Your task to perform on an android device: turn on the 12-hour format for clock Image 0: 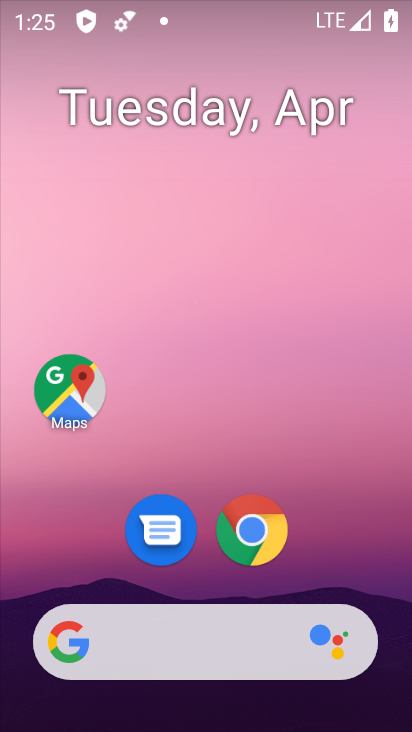
Step 0: drag from (222, 720) to (137, 21)
Your task to perform on an android device: turn on the 12-hour format for clock Image 1: 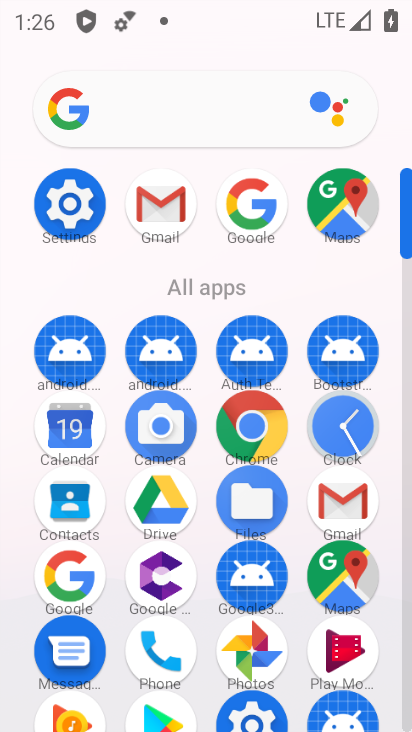
Step 1: click (345, 425)
Your task to perform on an android device: turn on the 12-hour format for clock Image 2: 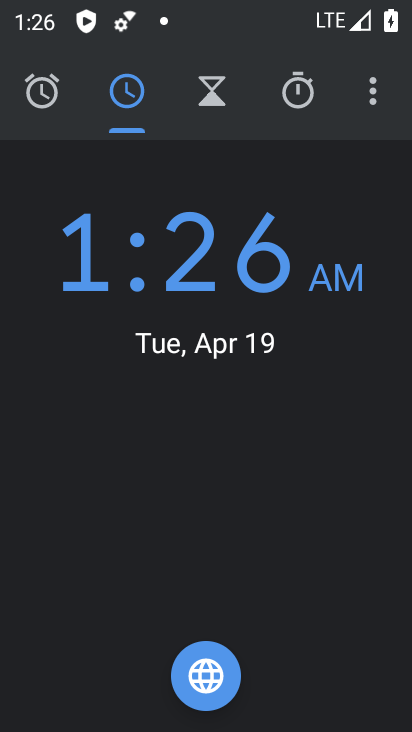
Step 2: click (375, 94)
Your task to perform on an android device: turn on the 12-hour format for clock Image 3: 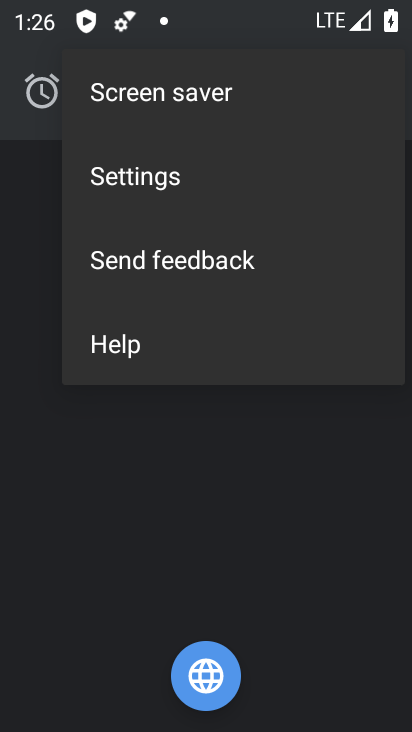
Step 3: click (125, 173)
Your task to perform on an android device: turn on the 12-hour format for clock Image 4: 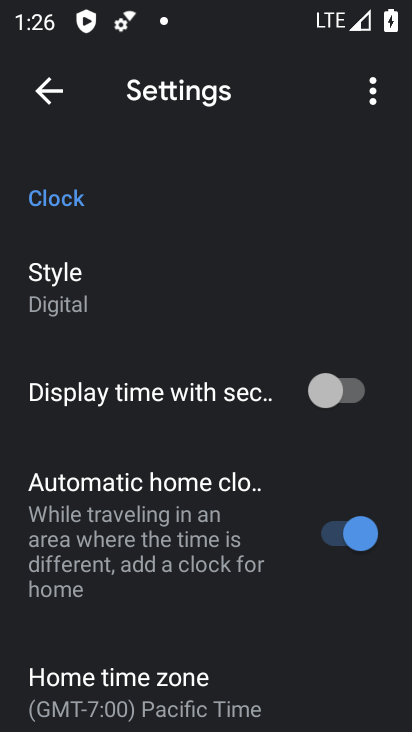
Step 4: drag from (150, 642) to (128, 259)
Your task to perform on an android device: turn on the 12-hour format for clock Image 5: 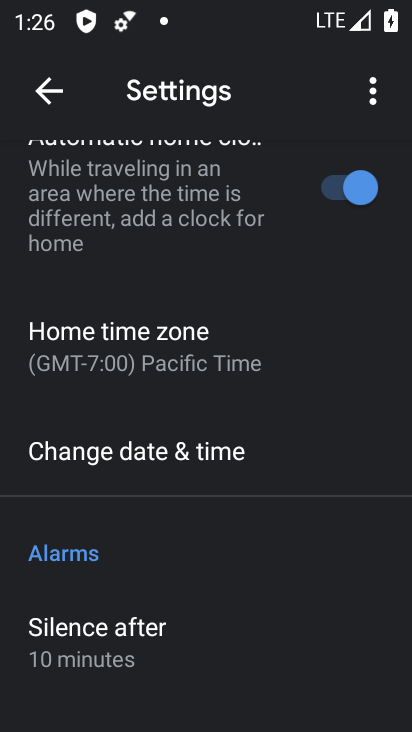
Step 5: click (152, 448)
Your task to perform on an android device: turn on the 12-hour format for clock Image 6: 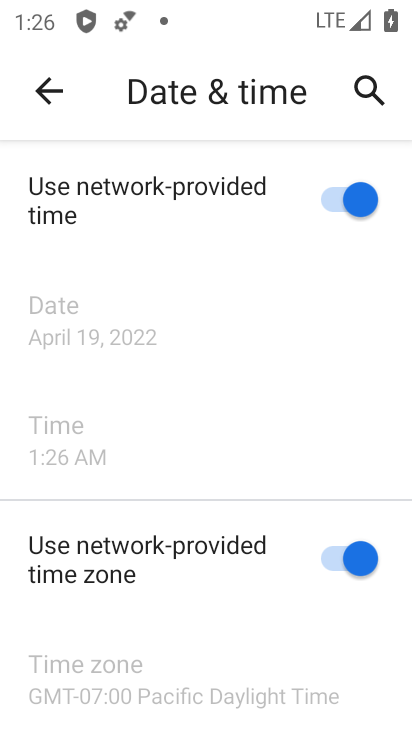
Step 6: task complete